Your task to perform on an android device: open device folders in google photos Image 0: 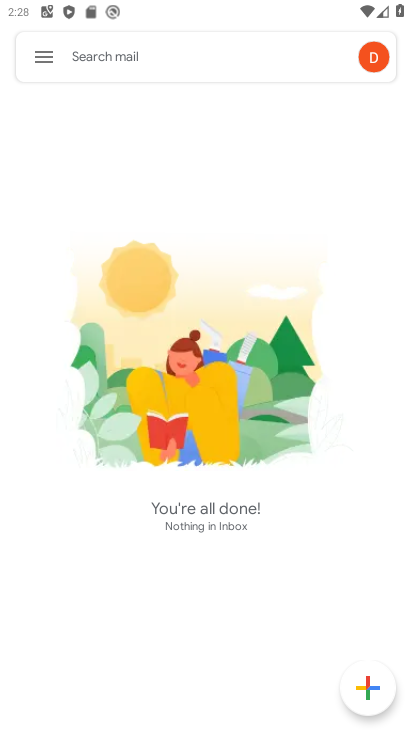
Step 0: press home button
Your task to perform on an android device: open device folders in google photos Image 1: 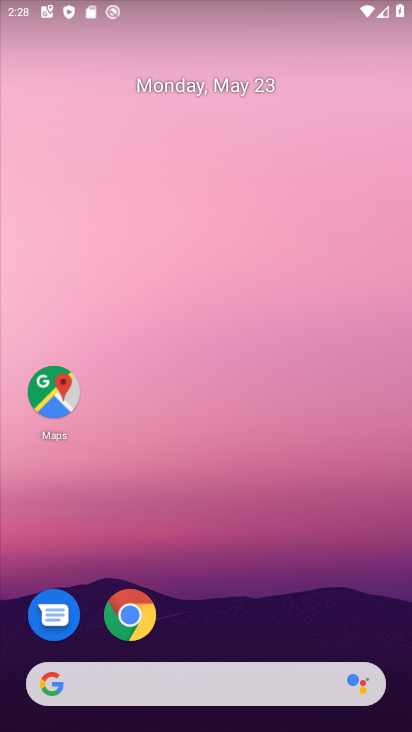
Step 1: drag from (275, 639) to (293, 0)
Your task to perform on an android device: open device folders in google photos Image 2: 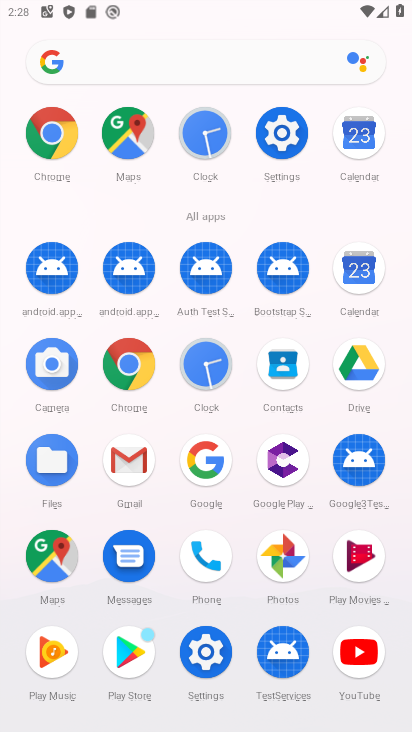
Step 2: click (280, 562)
Your task to perform on an android device: open device folders in google photos Image 3: 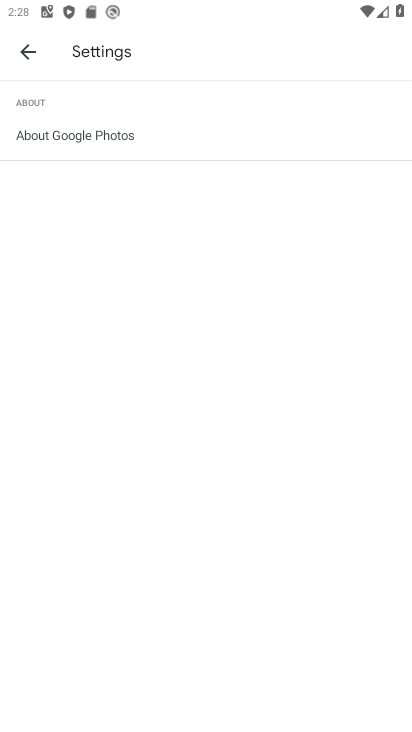
Step 3: click (28, 53)
Your task to perform on an android device: open device folders in google photos Image 4: 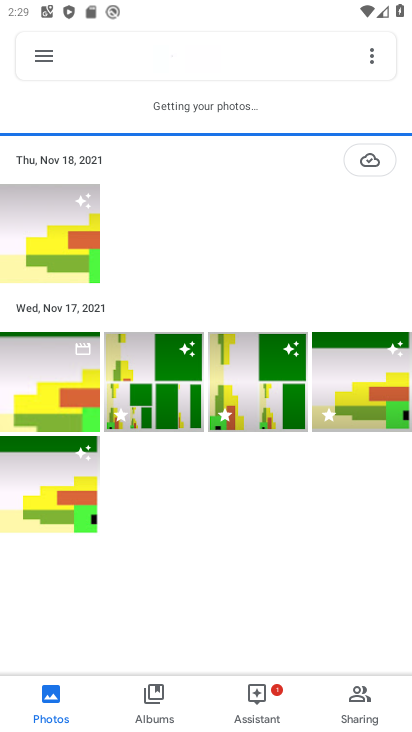
Step 4: click (45, 55)
Your task to perform on an android device: open device folders in google photos Image 5: 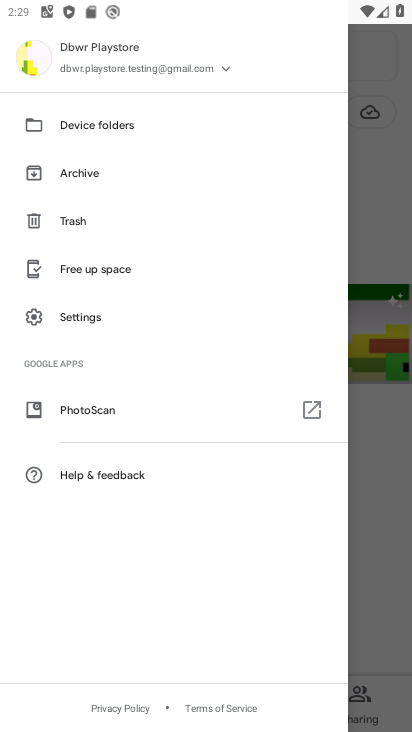
Step 5: click (77, 126)
Your task to perform on an android device: open device folders in google photos Image 6: 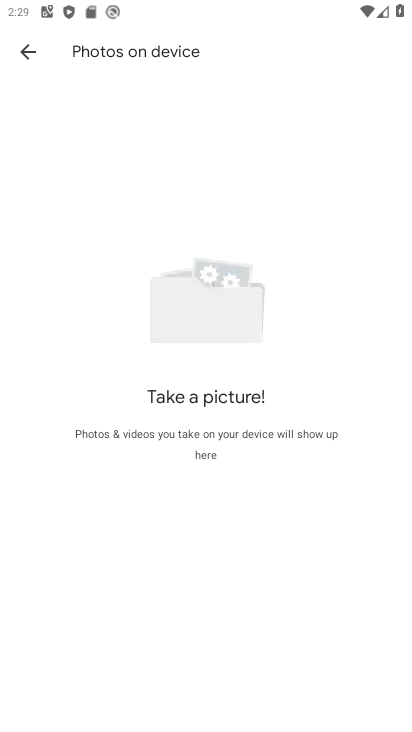
Step 6: task complete